Your task to perform on an android device: Search for Italian restaurants on Maps Image 0: 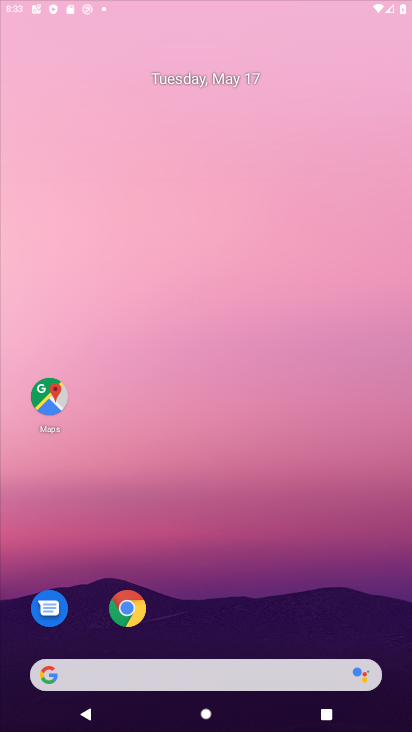
Step 0: click (350, 98)
Your task to perform on an android device: Search for Italian restaurants on Maps Image 1: 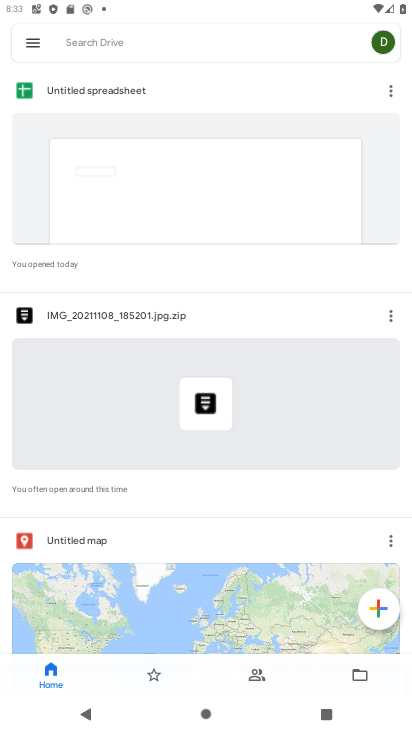
Step 1: press home button
Your task to perform on an android device: Search for Italian restaurants on Maps Image 2: 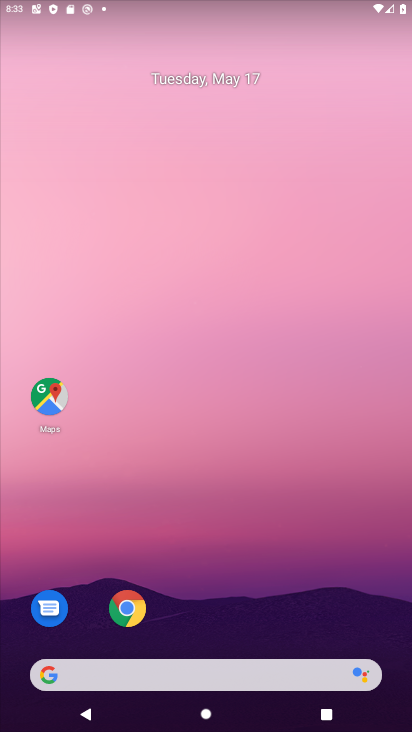
Step 2: click (59, 391)
Your task to perform on an android device: Search for Italian restaurants on Maps Image 3: 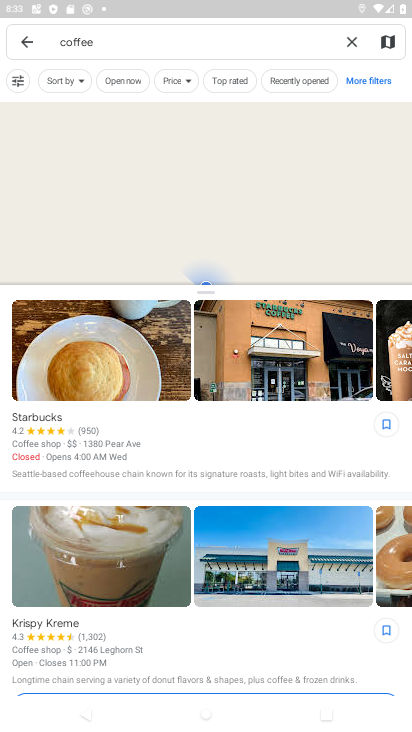
Step 3: click (347, 32)
Your task to perform on an android device: Search for Italian restaurants on Maps Image 4: 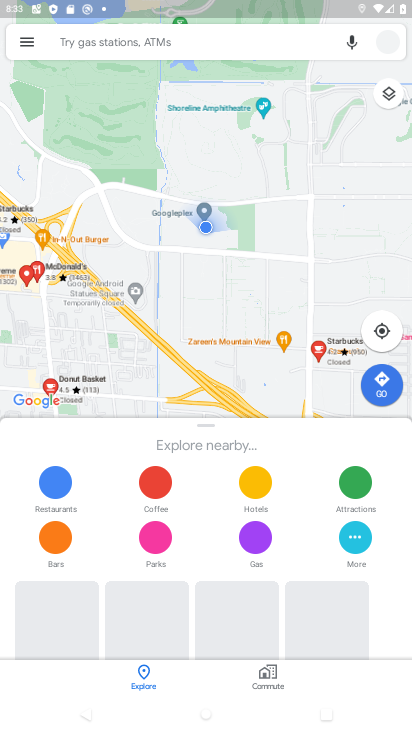
Step 4: click (230, 31)
Your task to perform on an android device: Search for Italian restaurants on Maps Image 5: 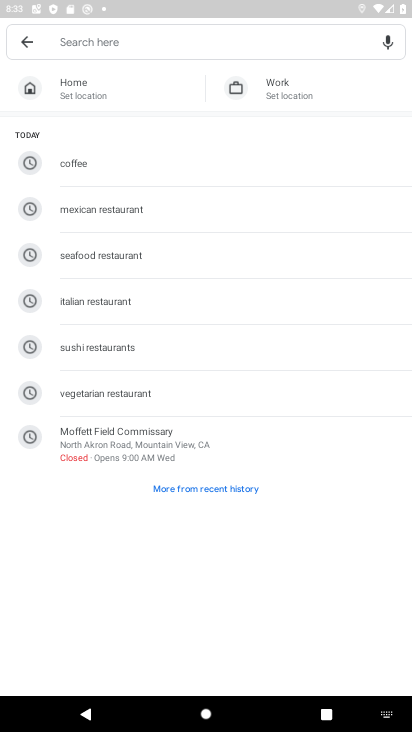
Step 5: click (231, 498)
Your task to perform on an android device: Search for Italian restaurants on Maps Image 6: 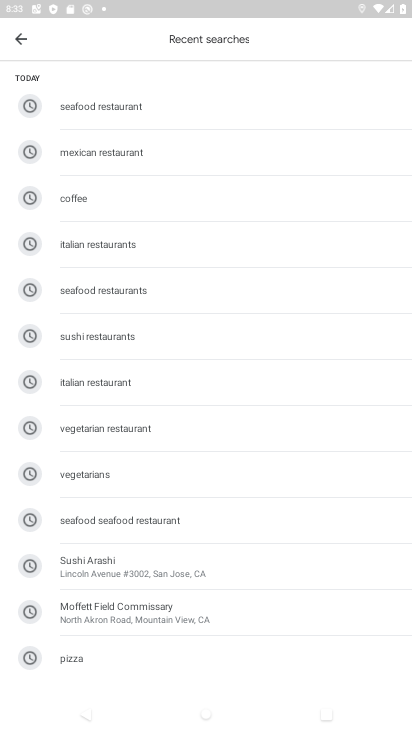
Step 6: click (166, 371)
Your task to perform on an android device: Search for Italian restaurants on Maps Image 7: 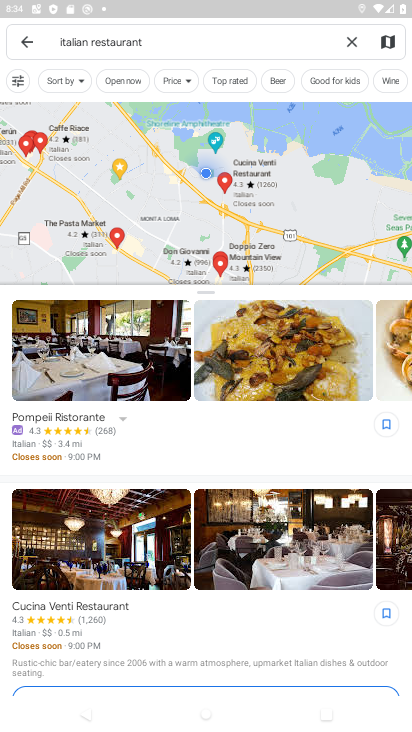
Step 7: task complete